Your task to perform on an android device: visit the assistant section in the google photos Image 0: 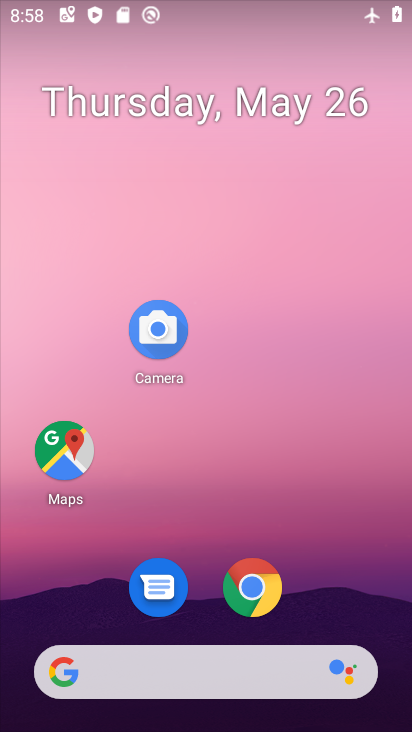
Step 0: drag from (214, 633) to (188, 286)
Your task to perform on an android device: visit the assistant section in the google photos Image 1: 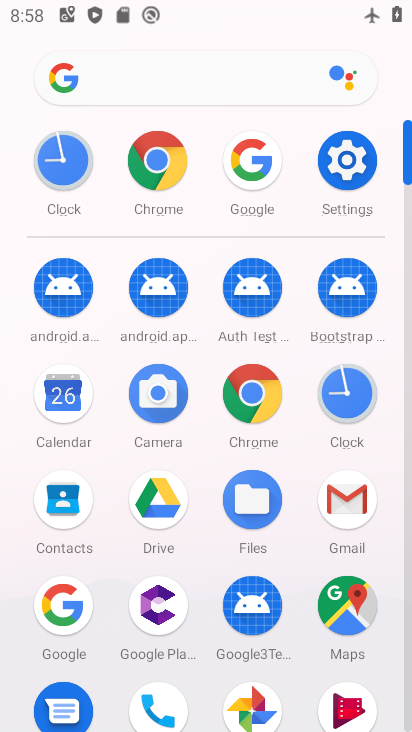
Step 1: click (242, 690)
Your task to perform on an android device: visit the assistant section in the google photos Image 2: 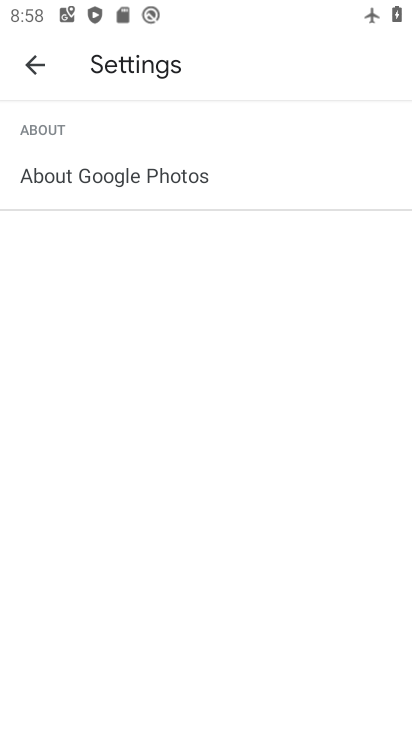
Step 2: click (26, 82)
Your task to perform on an android device: visit the assistant section in the google photos Image 3: 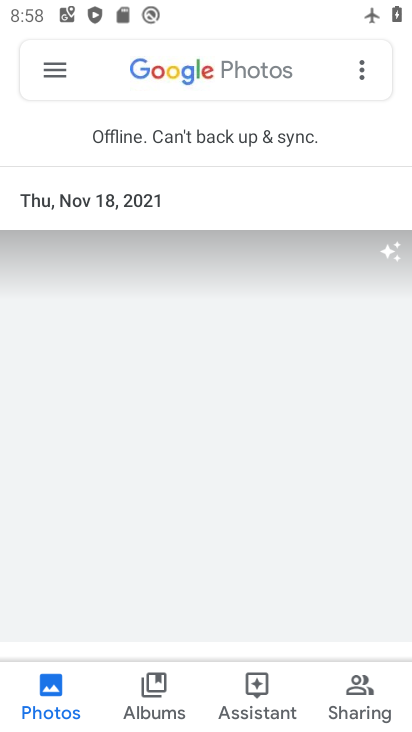
Step 3: click (272, 707)
Your task to perform on an android device: visit the assistant section in the google photos Image 4: 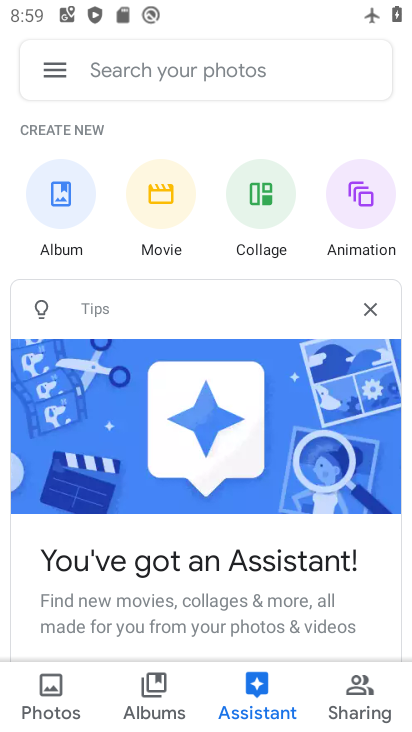
Step 4: task complete